Your task to perform on an android device: turn off location Image 0: 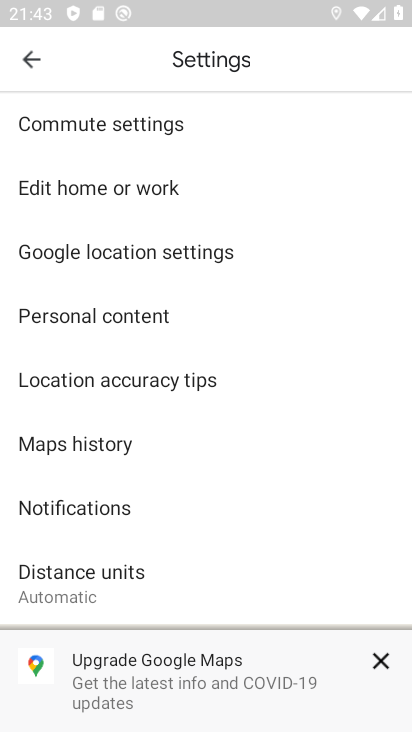
Step 0: press home button
Your task to perform on an android device: turn off location Image 1: 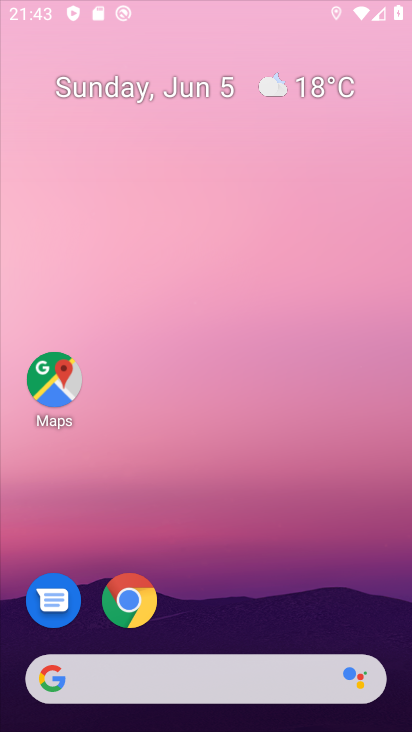
Step 1: drag from (251, 564) to (235, 87)
Your task to perform on an android device: turn off location Image 2: 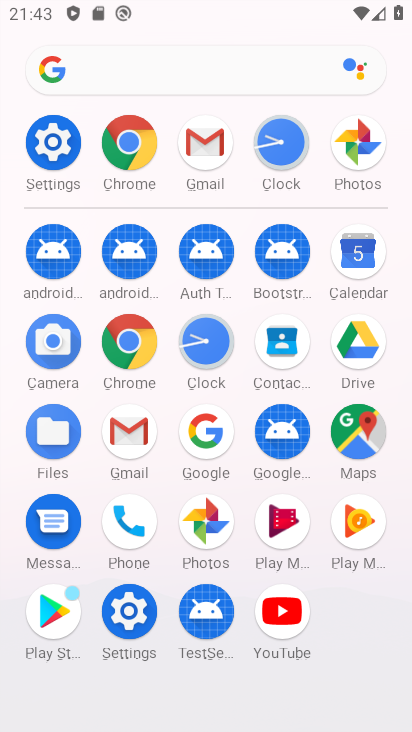
Step 2: click (52, 133)
Your task to perform on an android device: turn off location Image 3: 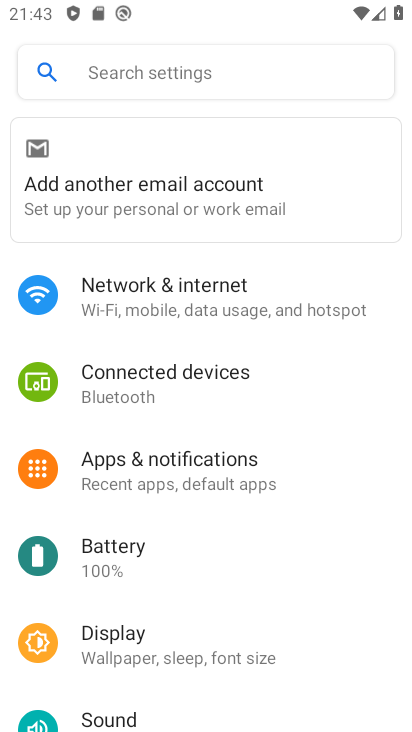
Step 3: drag from (183, 641) to (256, 137)
Your task to perform on an android device: turn off location Image 4: 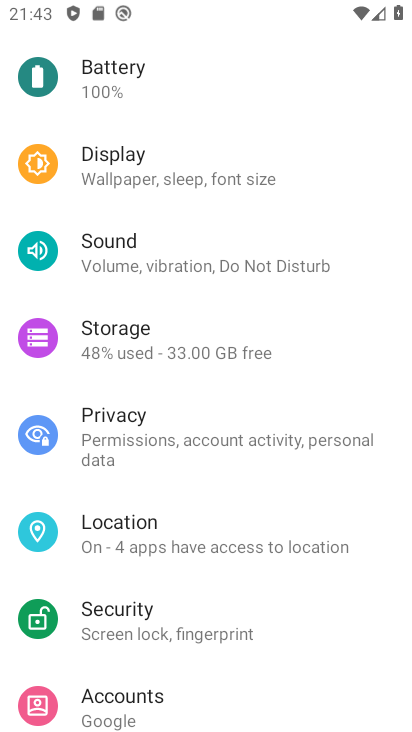
Step 4: click (132, 549)
Your task to perform on an android device: turn off location Image 5: 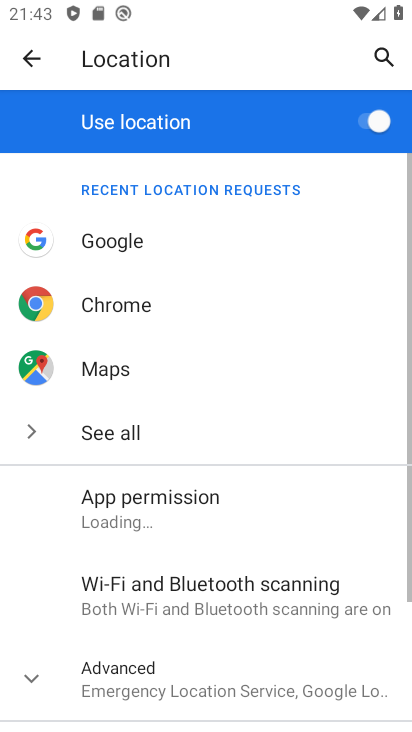
Step 5: click (370, 132)
Your task to perform on an android device: turn off location Image 6: 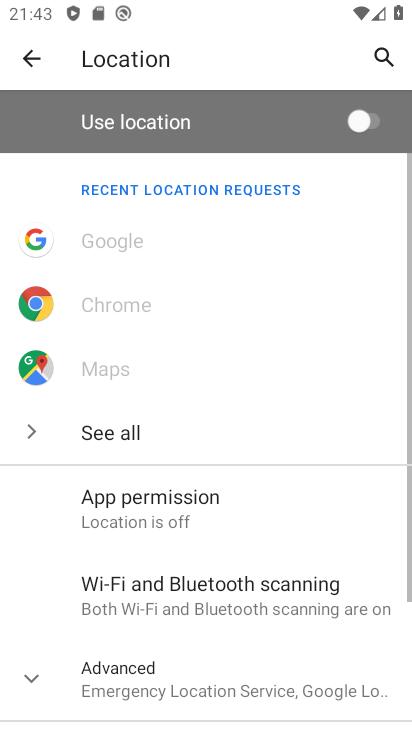
Step 6: task complete